Your task to perform on an android device: Go to location settings Image 0: 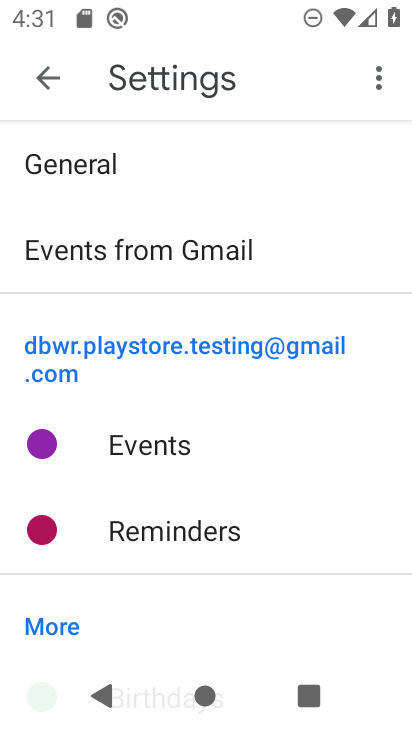
Step 0: press home button
Your task to perform on an android device: Go to location settings Image 1: 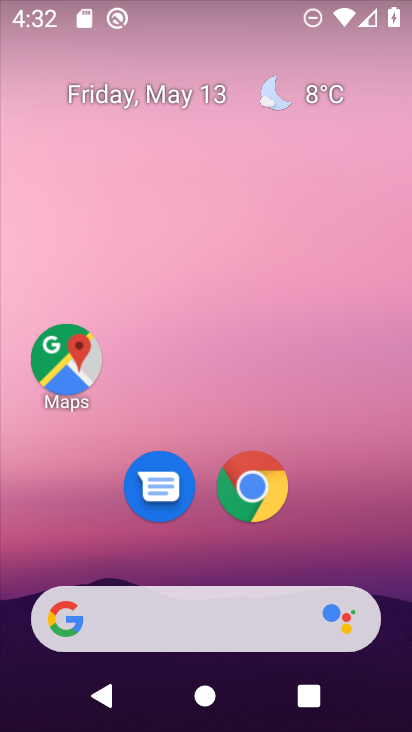
Step 1: drag from (314, 568) to (358, 141)
Your task to perform on an android device: Go to location settings Image 2: 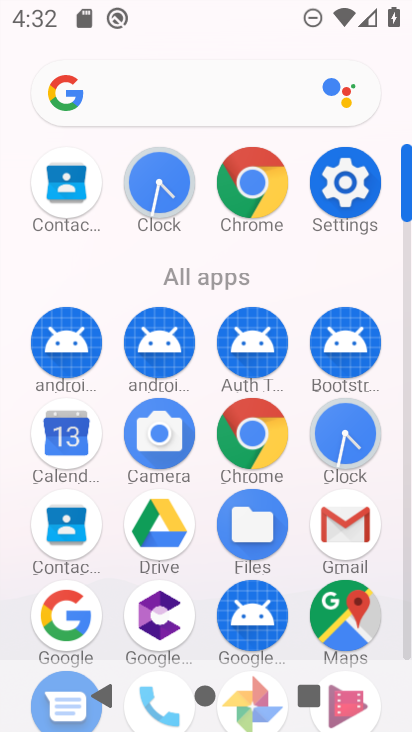
Step 2: click (360, 177)
Your task to perform on an android device: Go to location settings Image 3: 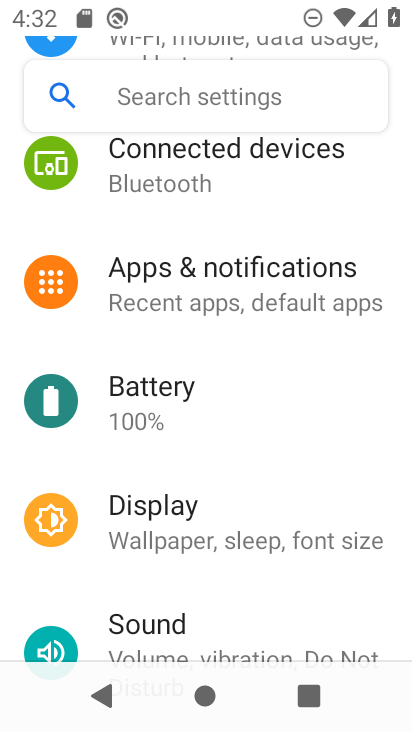
Step 3: drag from (236, 474) to (255, 222)
Your task to perform on an android device: Go to location settings Image 4: 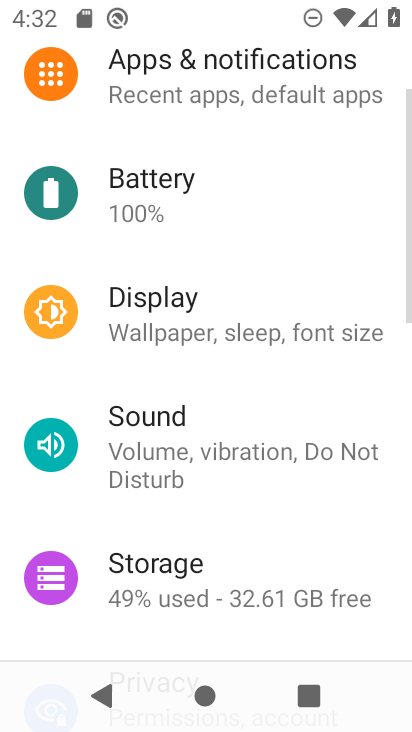
Step 4: drag from (229, 609) to (275, 432)
Your task to perform on an android device: Go to location settings Image 5: 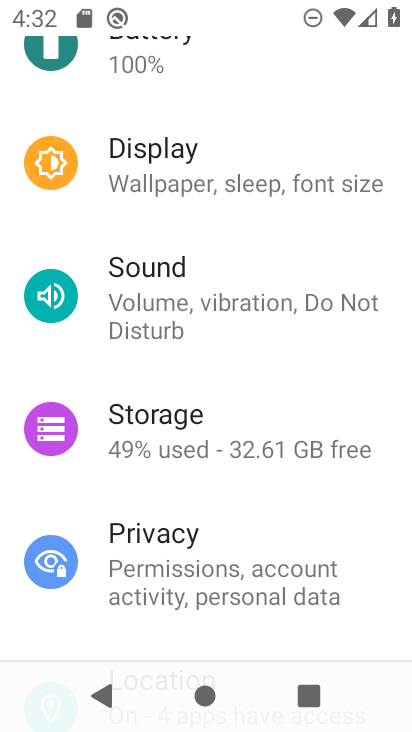
Step 5: drag from (150, 560) to (192, 382)
Your task to perform on an android device: Go to location settings Image 6: 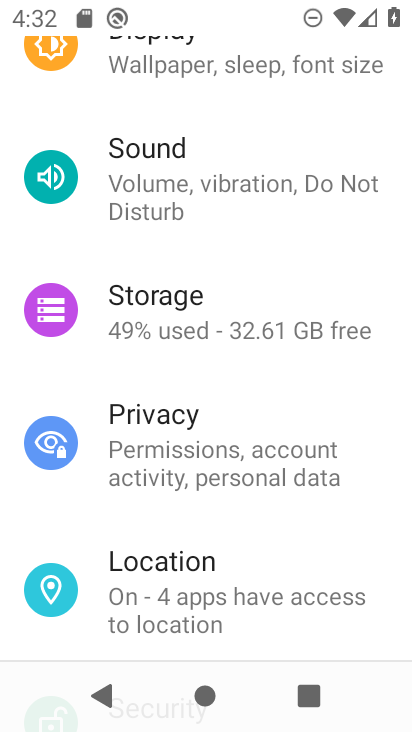
Step 6: click (214, 623)
Your task to perform on an android device: Go to location settings Image 7: 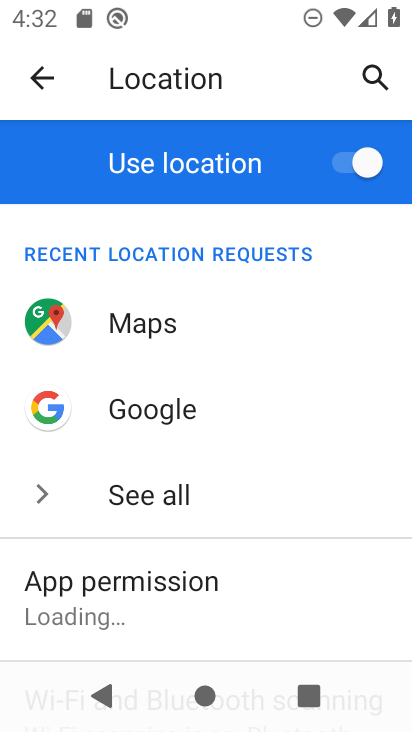
Step 7: task complete